Your task to perform on an android device: turn on showing notifications on the lock screen Image 0: 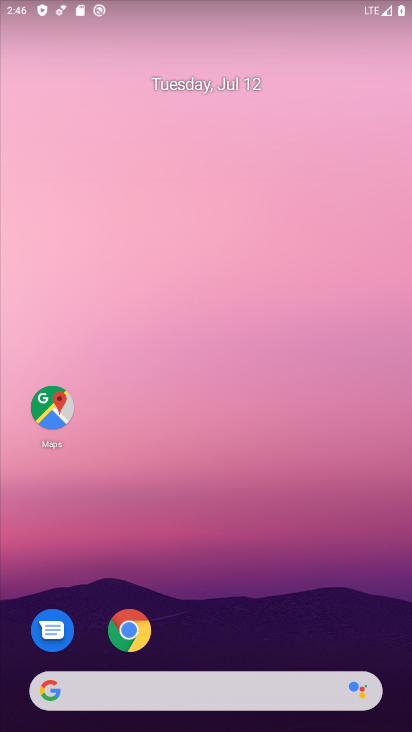
Step 0: drag from (219, 632) to (295, 22)
Your task to perform on an android device: turn on showing notifications on the lock screen Image 1: 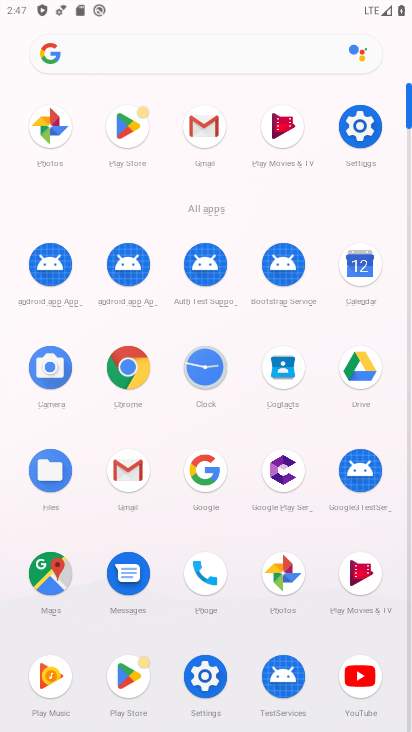
Step 1: click (208, 671)
Your task to perform on an android device: turn on showing notifications on the lock screen Image 2: 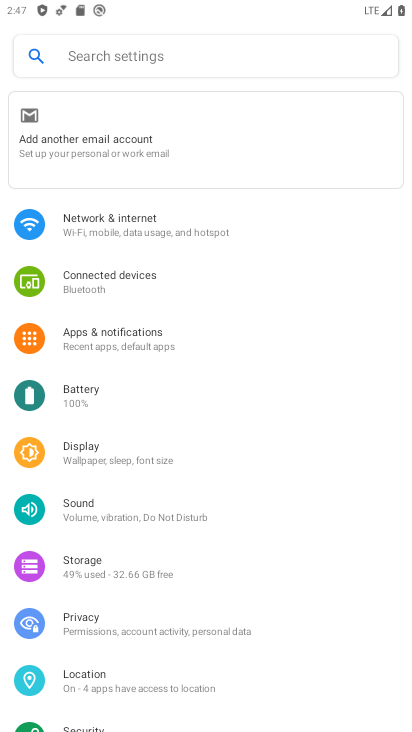
Step 2: click (110, 344)
Your task to perform on an android device: turn on showing notifications on the lock screen Image 3: 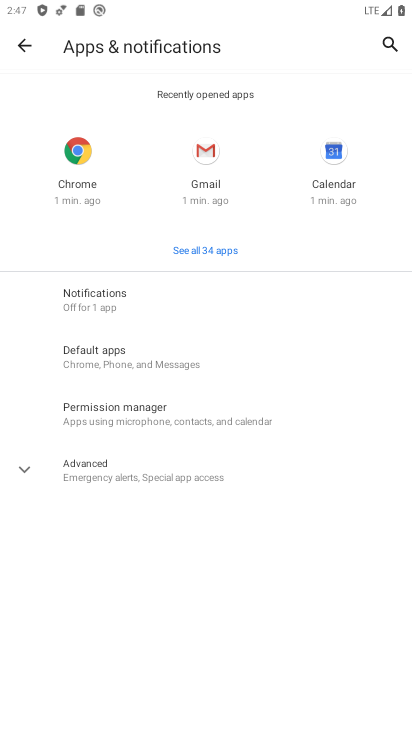
Step 3: click (107, 293)
Your task to perform on an android device: turn on showing notifications on the lock screen Image 4: 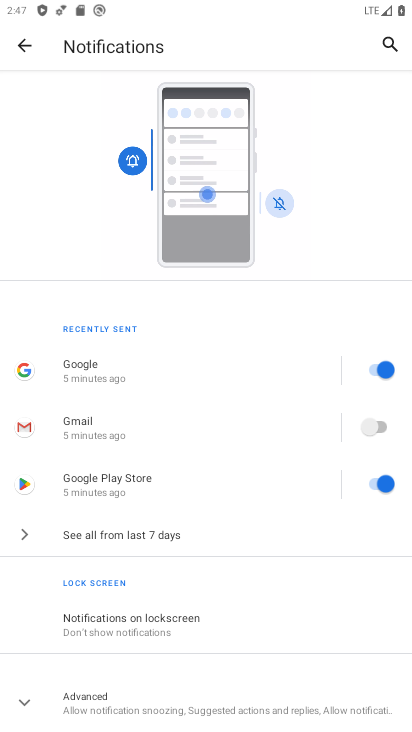
Step 4: click (143, 625)
Your task to perform on an android device: turn on showing notifications on the lock screen Image 5: 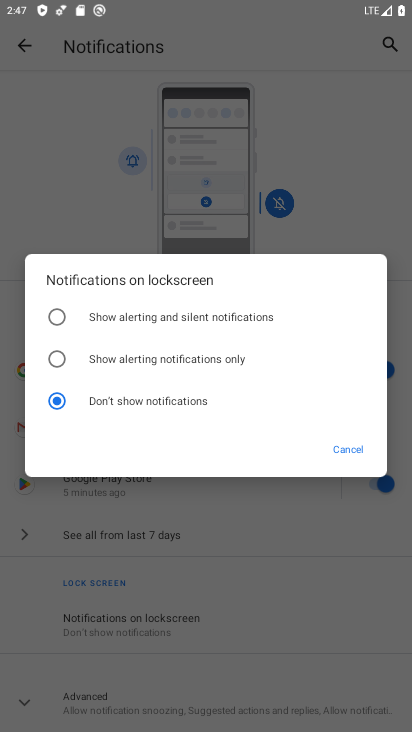
Step 5: click (141, 311)
Your task to perform on an android device: turn on showing notifications on the lock screen Image 6: 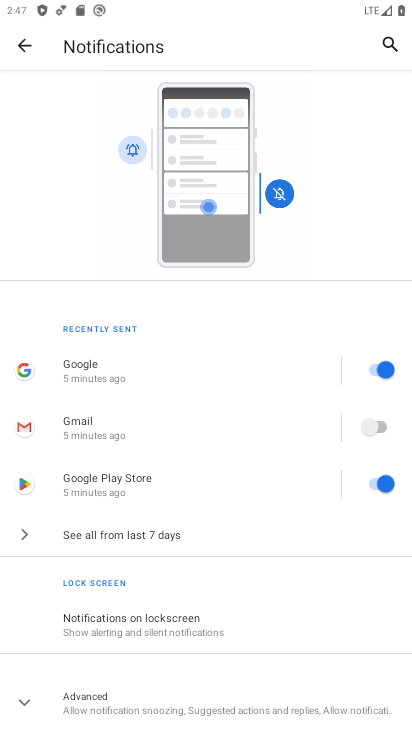
Step 6: task complete